Your task to perform on an android device: Open notification settings Image 0: 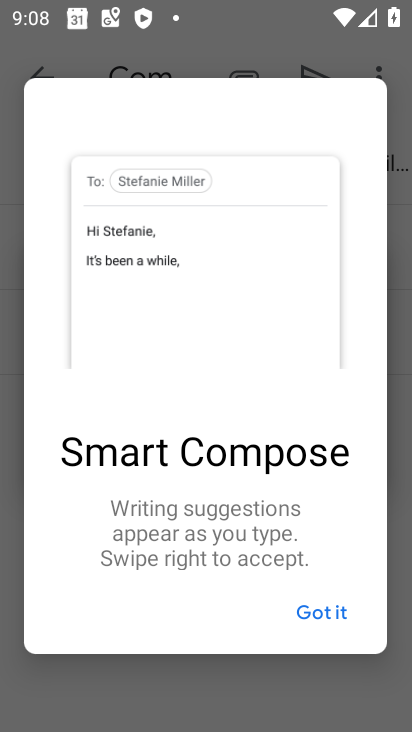
Step 0: click (324, 608)
Your task to perform on an android device: Open notification settings Image 1: 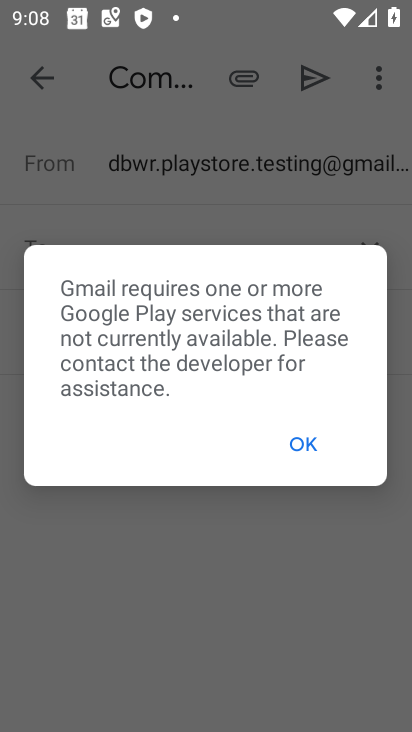
Step 1: click (305, 443)
Your task to perform on an android device: Open notification settings Image 2: 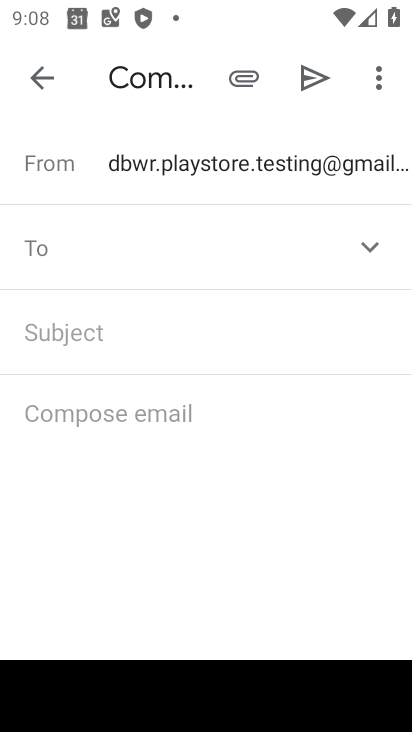
Step 2: press back button
Your task to perform on an android device: Open notification settings Image 3: 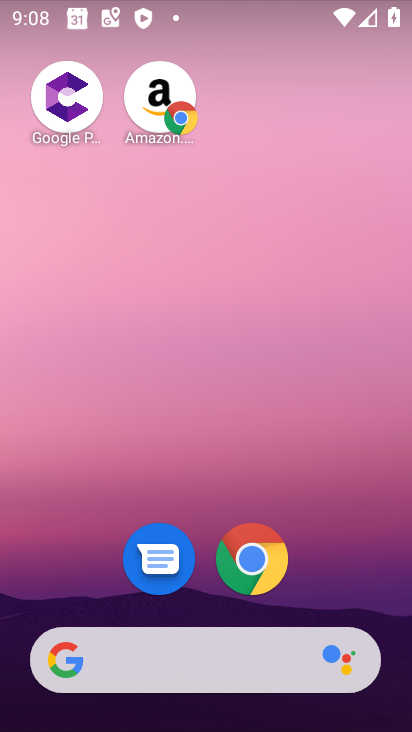
Step 3: drag from (364, 519) to (328, 19)
Your task to perform on an android device: Open notification settings Image 4: 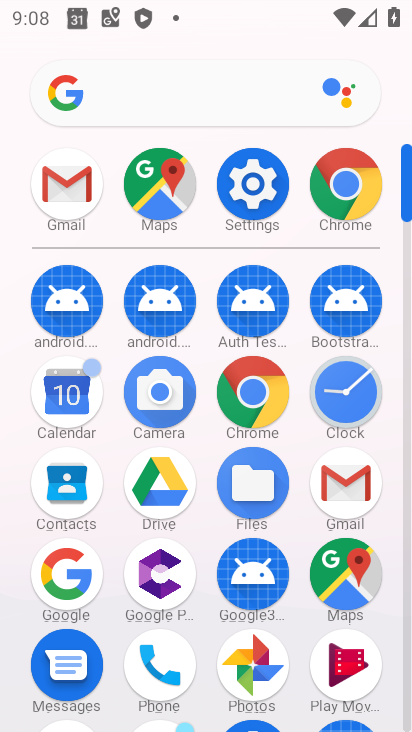
Step 4: click (247, 181)
Your task to perform on an android device: Open notification settings Image 5: 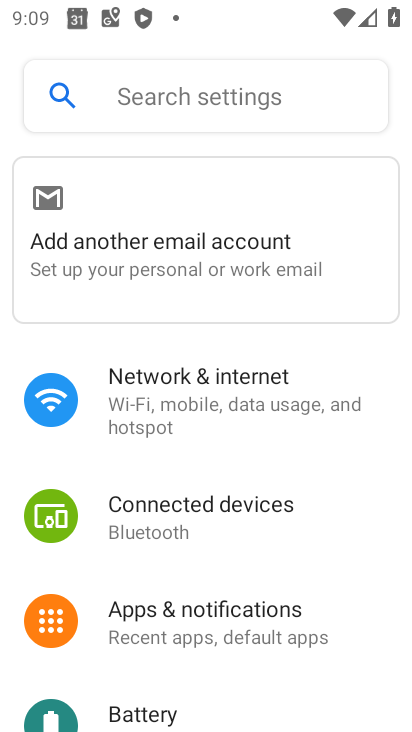
Step 5: click (168, 600)
Your task to perform on an android device: Open notification settings Image 6: 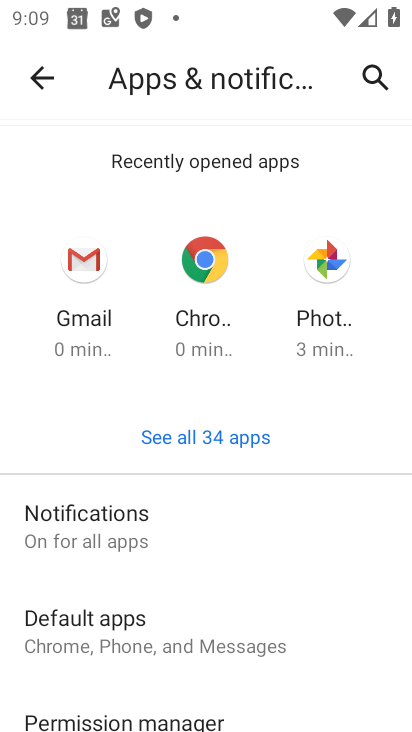
Step 6: drag from (294, 542) to (296, 131)
Your task to perform on an android device: Open notification settings Image 7: 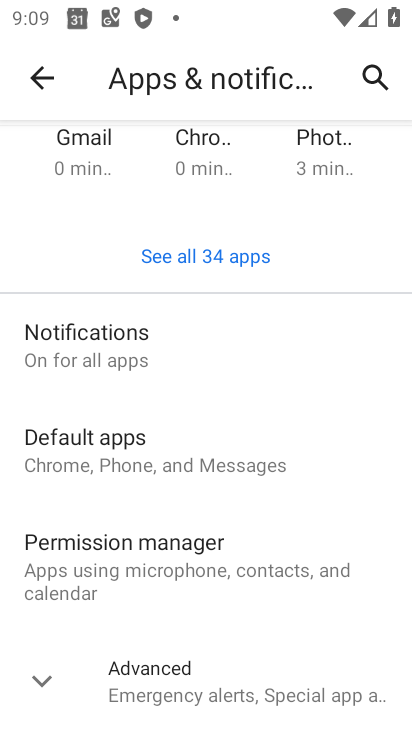
Step 7: click (39, 683)
Your task to perform on an android device: Open notification settings Image 8: 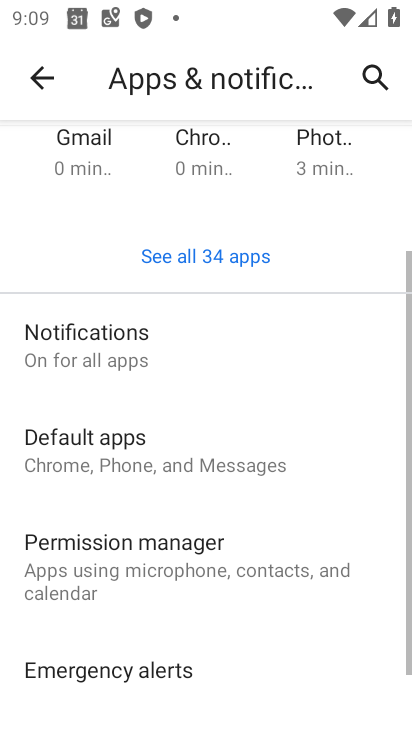
Step 8: click (220, 342)
Your task to perform on an android device: Open notification settings Image 9: 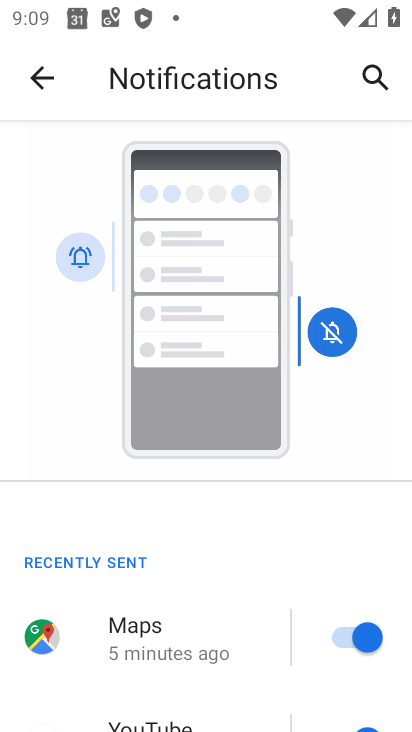
Step 9: task complete